Your task to perform on an android device: Open the stopwatch Image 0: 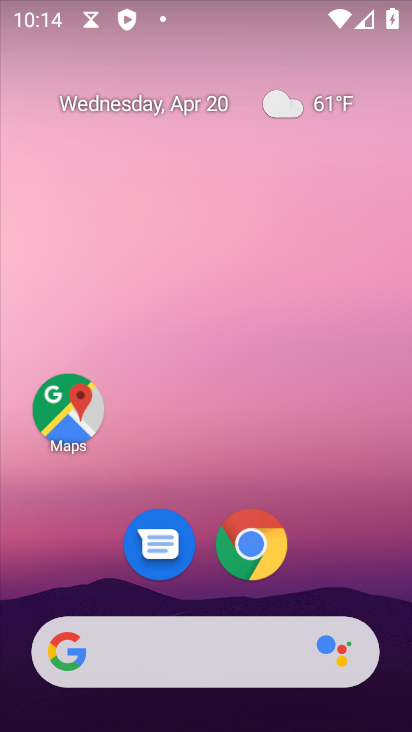
Step 0: drag from (170, 647) to (345, 147)
Your task to perform on an android device: Open the stopwatch Image 1: 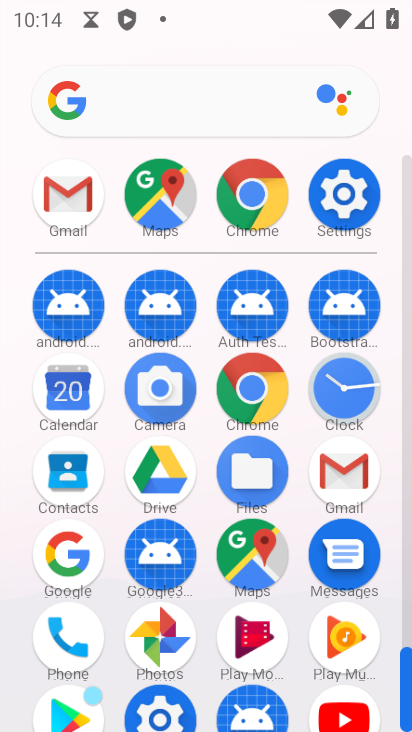
Step 1: click (338, 401)
Your task to perform on an android device: Open the stopwatch Image 2: 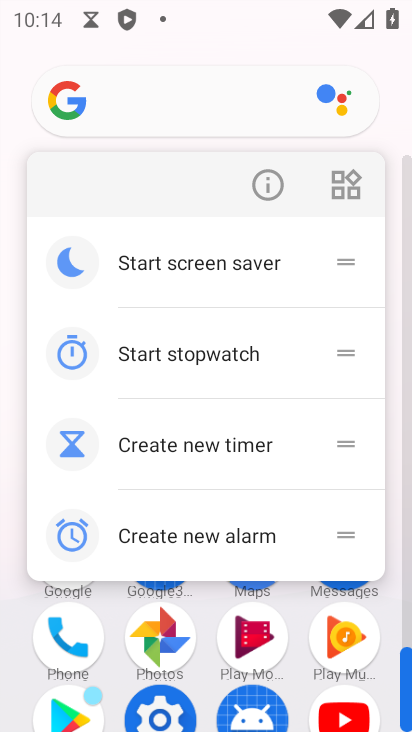
Step 2: drag from (174, 685) to (386, 98)
Your task to perform on an android device: Open the stopwatch Image 3: 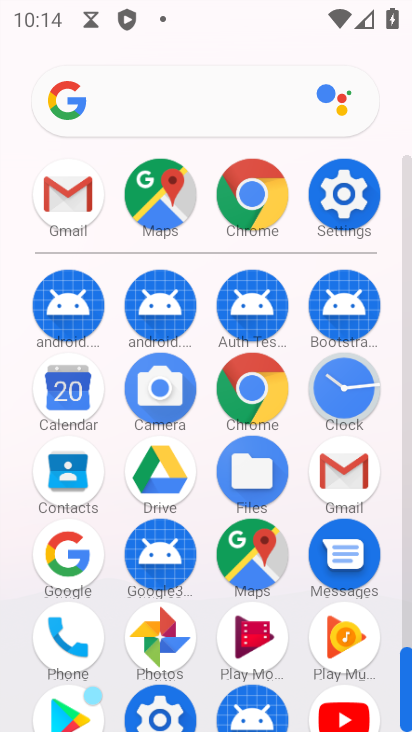
Step 3: click (353, 400)
Your task to perform on an android device: Open the stopwatch Image 4: 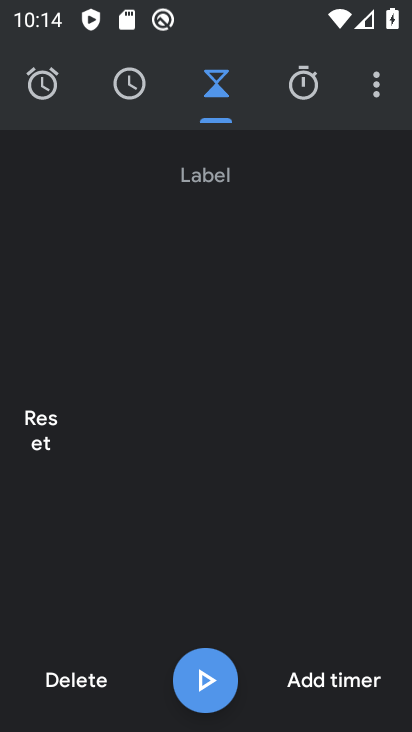
Step 4: click (303, 84)
Your task to perform on an android device: Open the stopwatch Image 5: 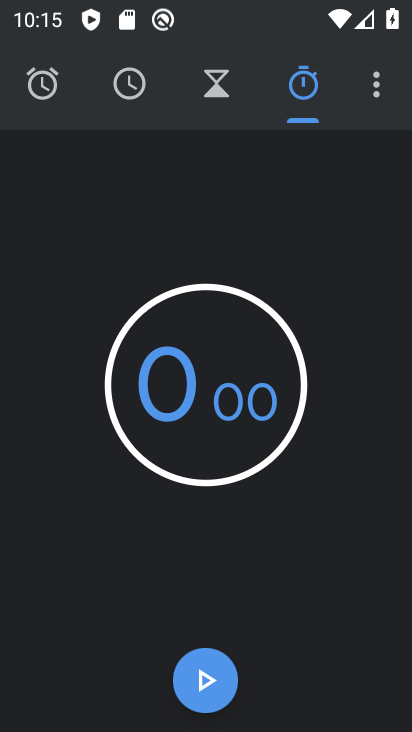
Step 5: task complete